Your task to perform on an android device: change alarm snooze length Image 0: 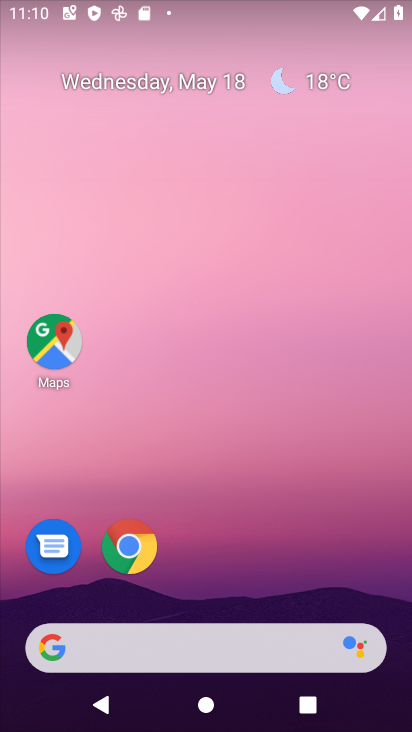
Step 0: drag from (239, 728) to (249, 171)
Your task to perform on an android device: change alarm snooze length Image 1: 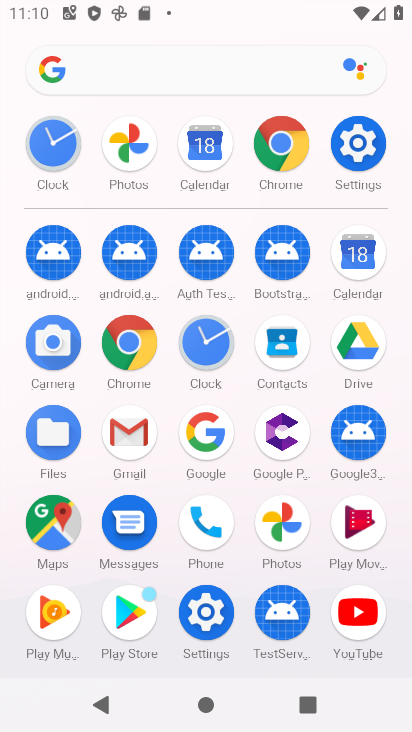
Step 1: click (205, 350)
Your task to perform on an android device: change alarm snooze length Image 2: 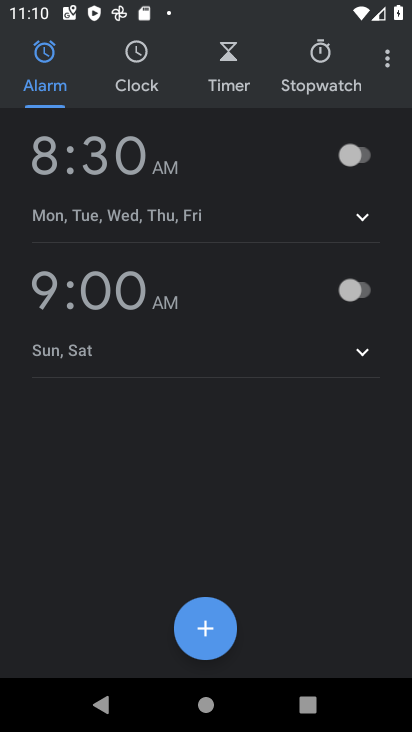
Step 2: click (389, 68)
Your task to perform on an android device: change alarm snooze length Image 3: 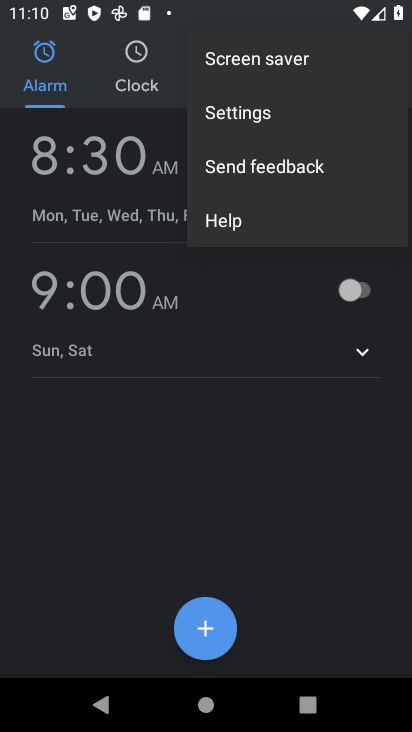
Step 3: click (248, 115)
Your task to perform on an android device: change alarm snooze length Image 4: 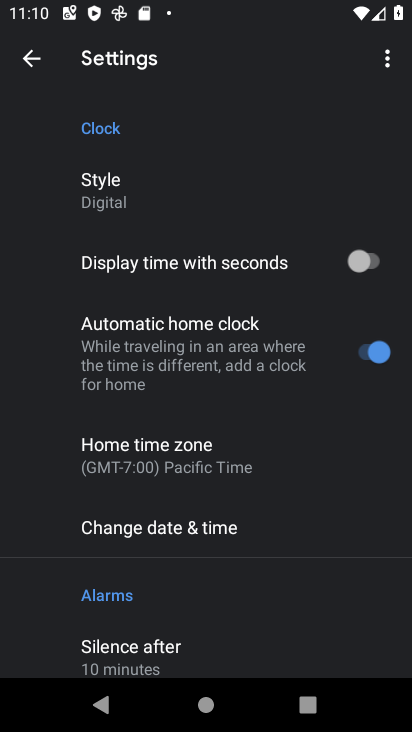
Step 4: drag from (183, 639) to (192, 295)
Your task to perform on an android device: change alarm snooze length Image 5: 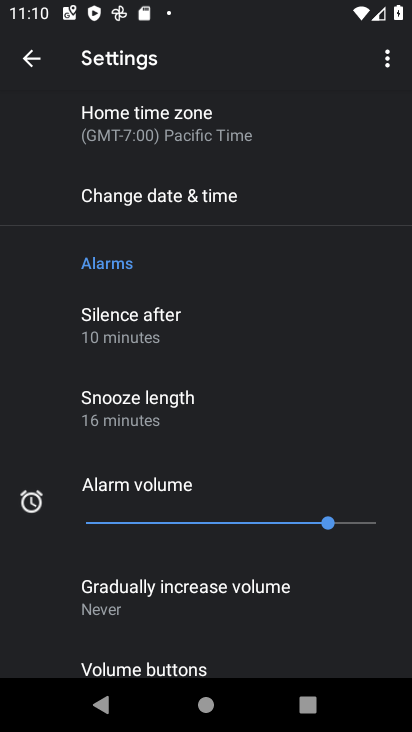
Step 5: click (146, 399)
Your task to perform on an android device: change alarm snooze length Image 6: 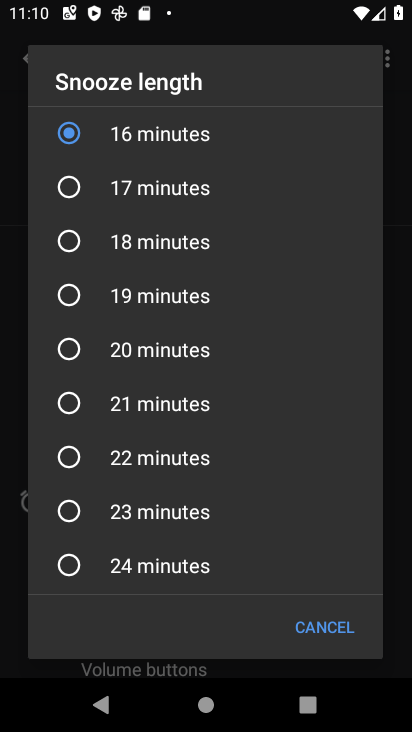
Step 6: click (74, 511)
Your task to perform on an android device: change alarm snooze length Image 7: 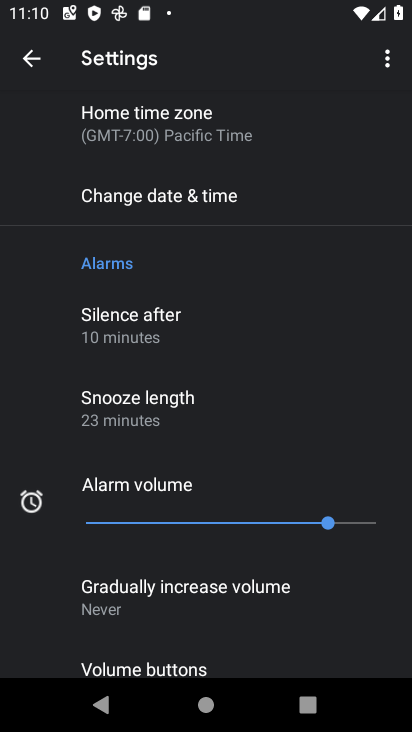
Step 7: task complete